Your task to perform on an android device: Go to wifi settings Image 0: 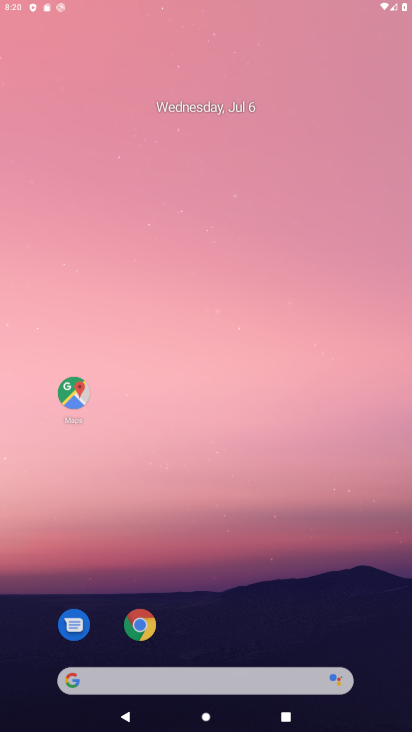
Step 0: click (194, 18)
Your task to perform on an android device: Go to wifi settings Image 1: 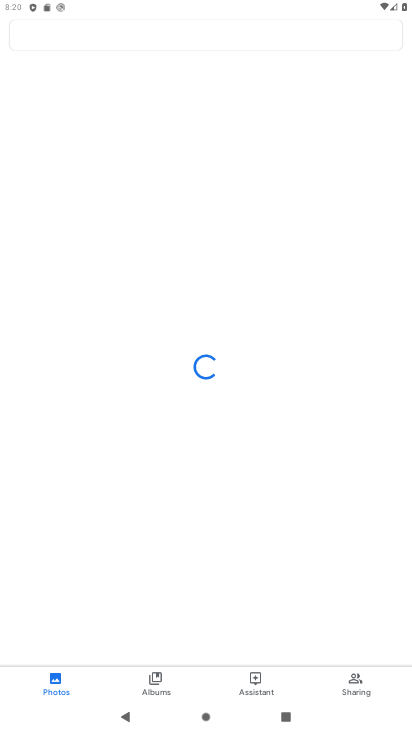
Step 1: press home button
Your task to perform on an android device: Go to wifi settings Image 2: 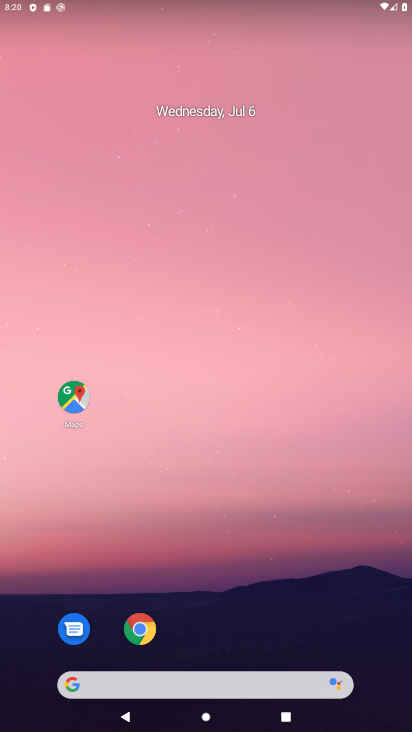
Step 2: drag from (192, 664) to (191, 158)
Your task to perform on an android device: Go to wifi settings Image 3: 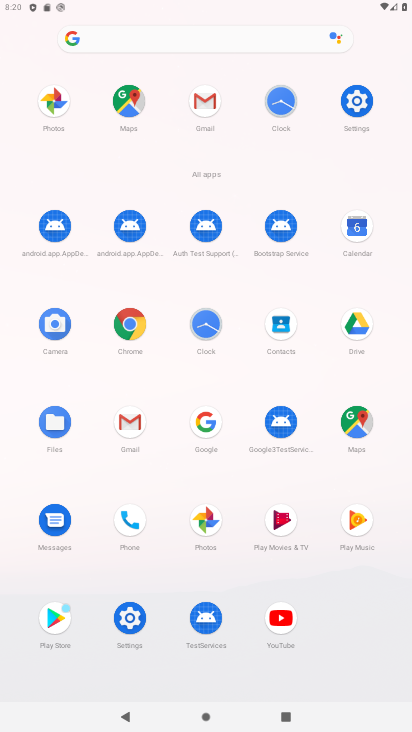
Step 3: click (348, 102)
Your task to perform on an android device: Go to wifi settings Image 4: 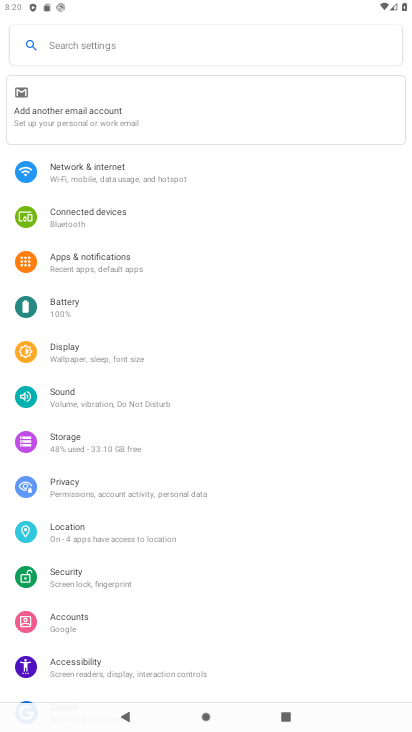
Step 4: click (94, 181)
Your task to perform on an android device: Go to wifi settings Image 5: 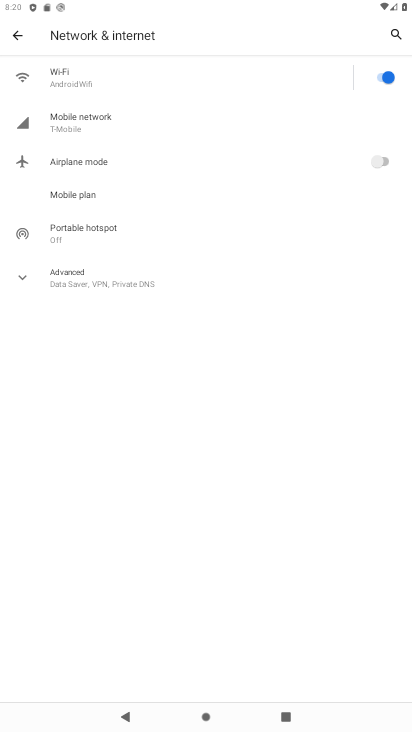
Step 5: click (60, 89)
Your task to perform on an android device: Go to wifi settings Image 6: 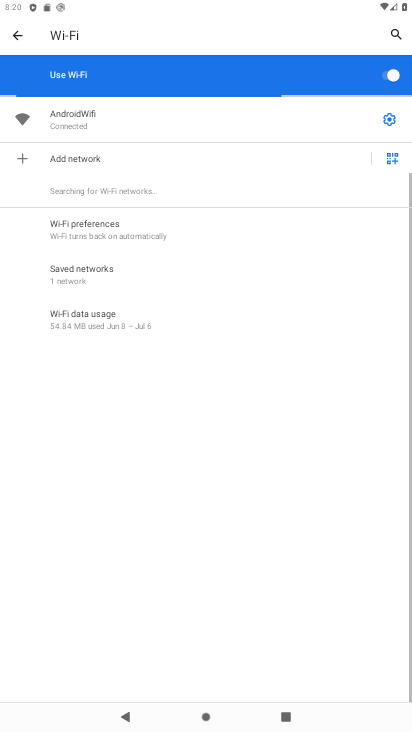
Step 6: task complete